Your task to perform on an android device: Empty the shopping cart on ebay. Add asus zenbook to the cart on ebay, then select checkout. Image 0: 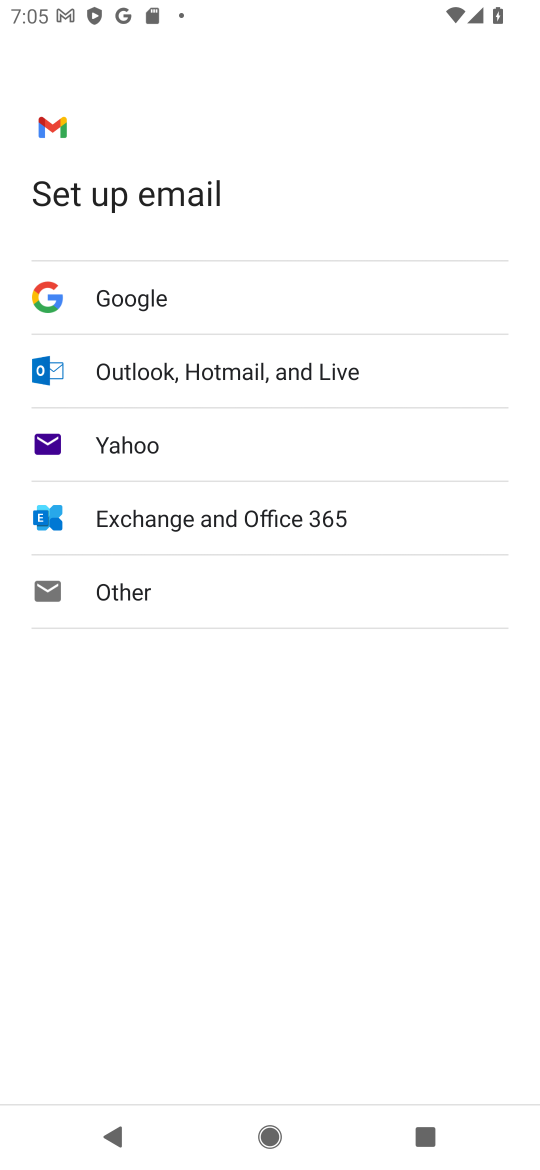
Step 0: task complete